Your task to perform on an android device: turn off wifi Image 0: 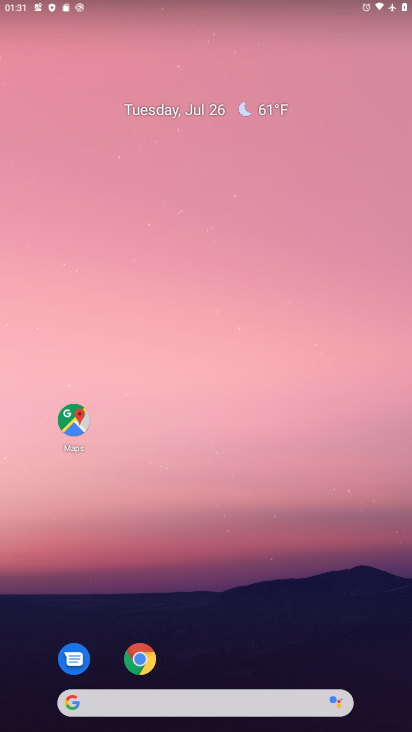
Step 0: drag from (242, 643) to (219, 67)
Your task to perform on an android device: turn off wifi Image 1: 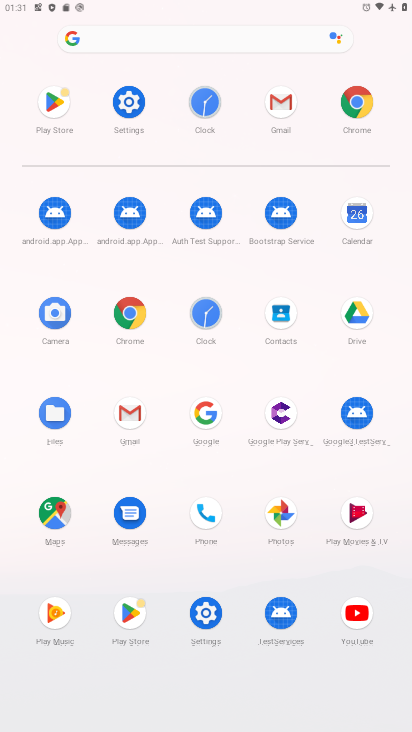
Step 1: click (127, 100)
Your task to perform on an android device: turn off wifi Image 2: 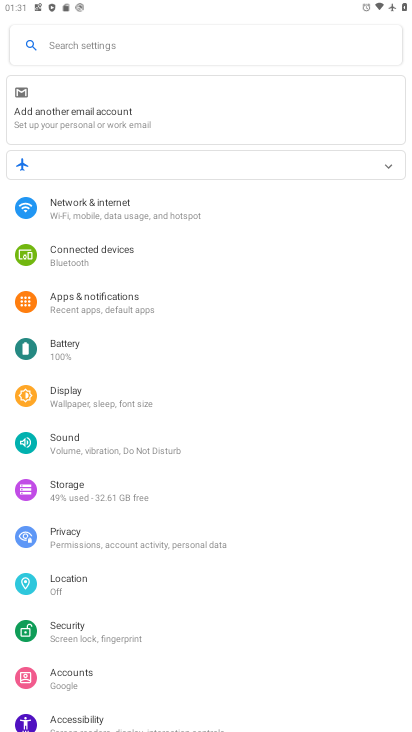
Step 2: click (138, 208)
Your task to perform on an android device: turn off wifi Image 3: 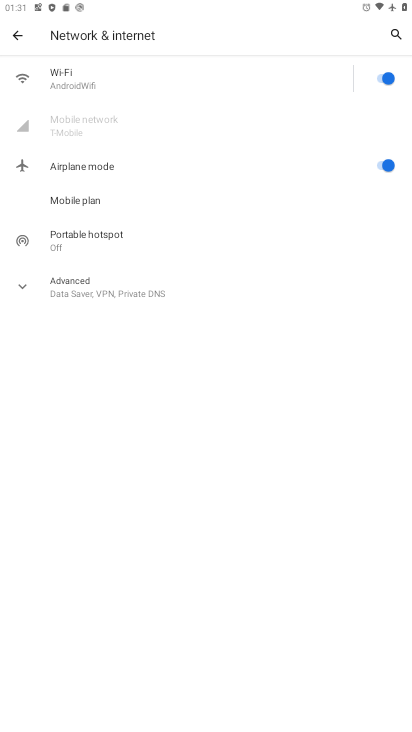
Step 3: click (100, 86)
Your task to perform on an android device: turn off wifi Image 4: 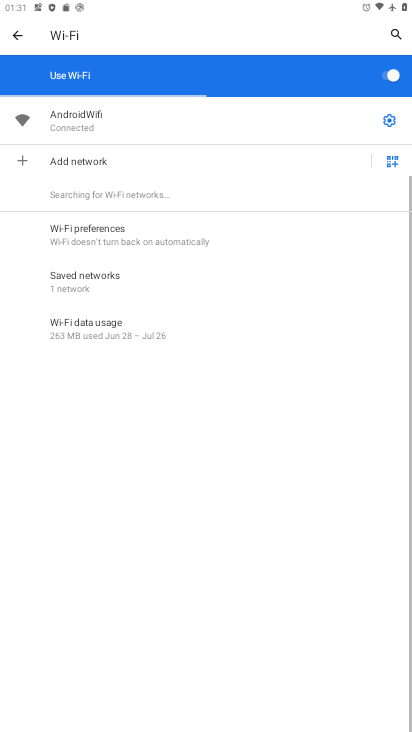
Step 4: click (380, 75)
Your task to perform on an android device: turn off wifi Image 5: 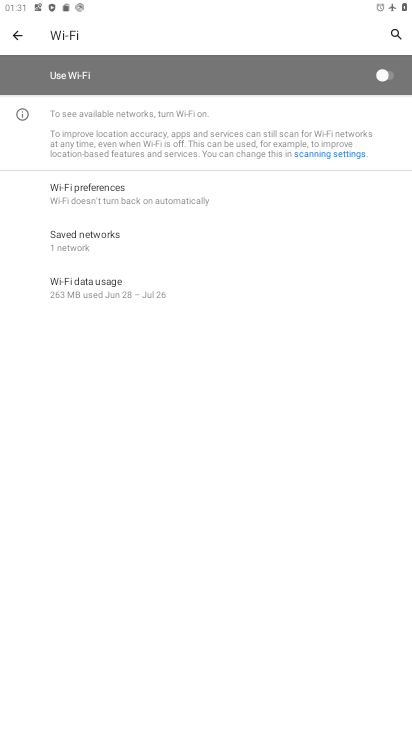
Step 5: task complete